Your task to perform on an android device: Go to internet settings Image 0: 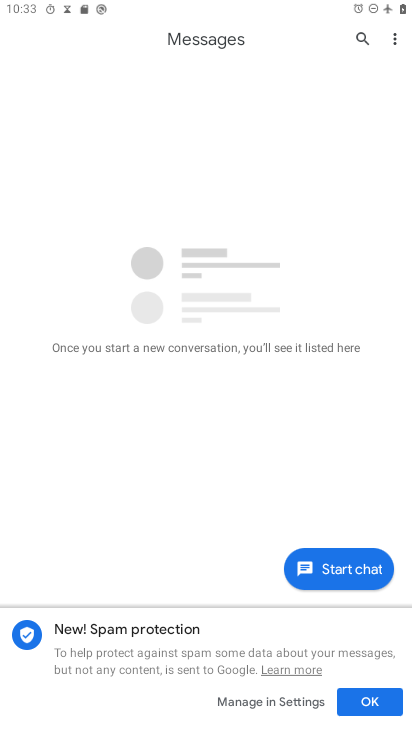
Step 0: press home button
Your task to perform on an android device: Go to internet settings Image 1: 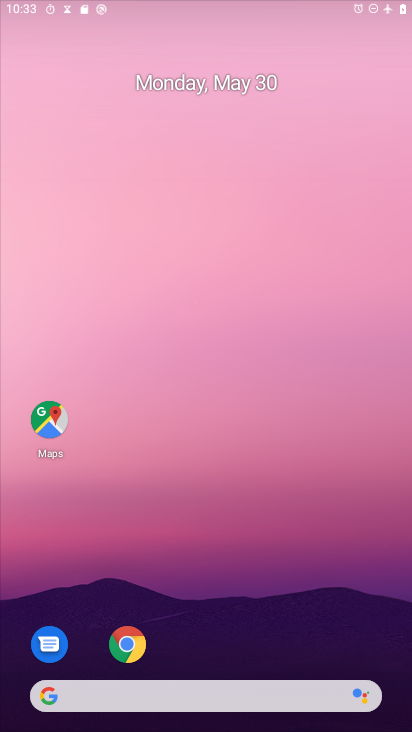
Step 1: drag from (209, 642) to (297, 10)
Your task to perform on an android device: Go to internet settings Image 2: 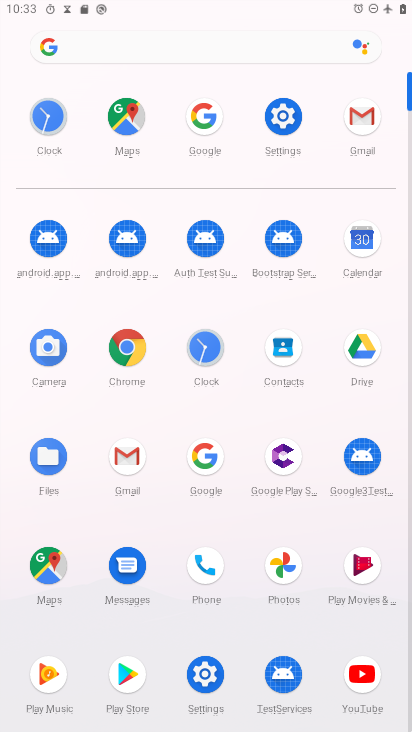
Step 2: click (289, 116)
Your task to perform on an android device: Go to internet settings Image 3: 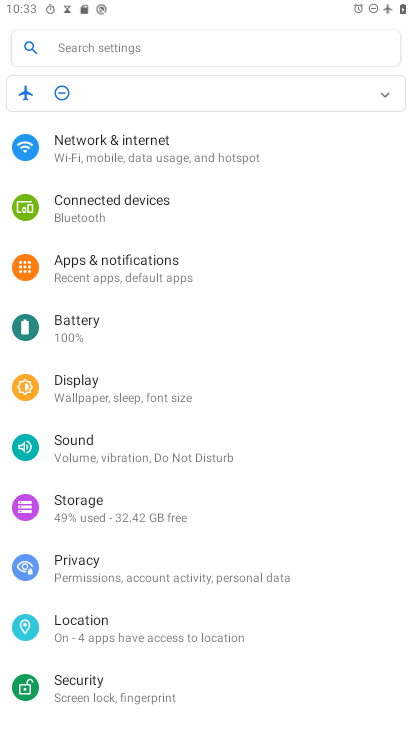
Step 3: click (133, 154)
Your task to perform on an android device: Go to internet settings Image 4: 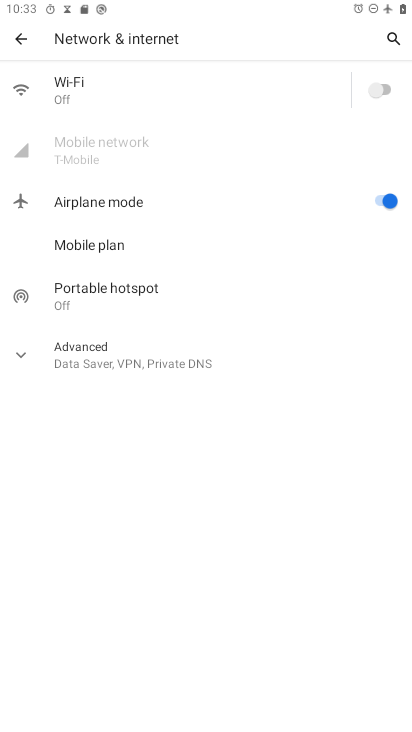
Step 4: click (134, 88)
Your task to perform on an android device: Go to internet settings Image 5: 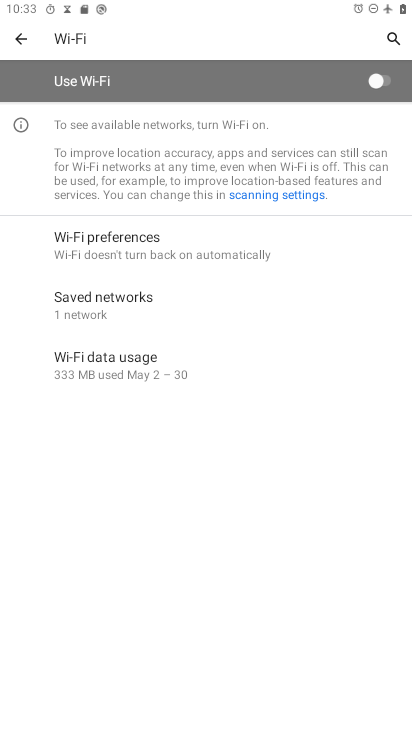
Step 5: click (377, 83)
Your task to perform on an android device: Go to internet settings Image 6: 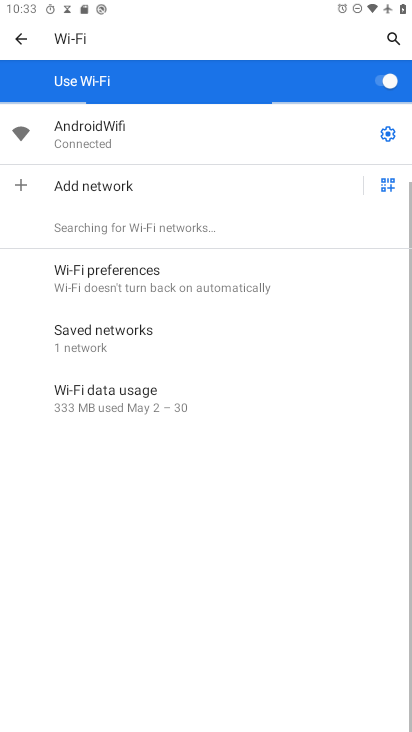
Step 6: click (174, 126)
Your task to perform on an android device: Go to internet settings Image 7: 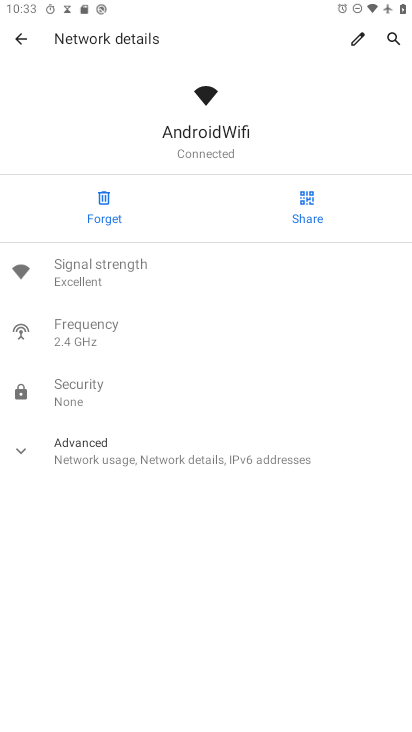
Step 7: task complete